Your task to perform on an android device: change timer sound Image 0: 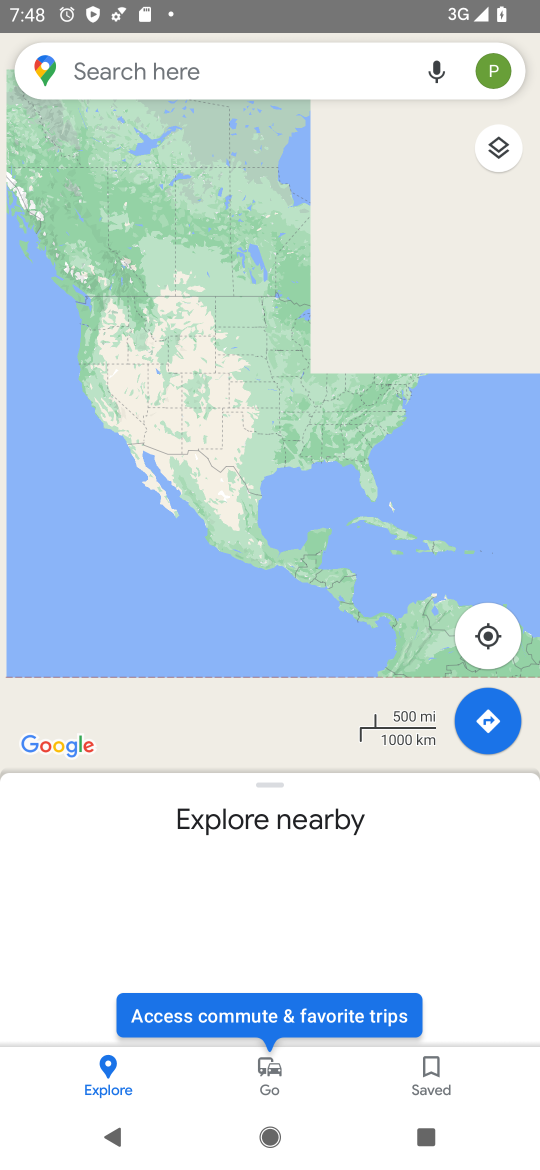
Step 0: press back button
Your task to perform on an android device: change timer sound Image 1: 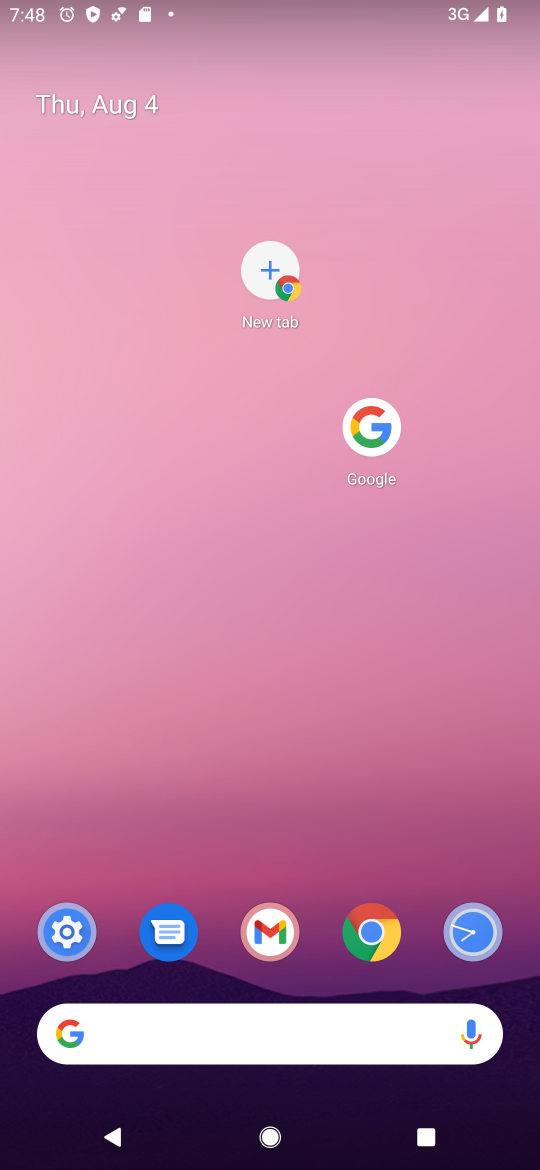
Step 1: drag from (251, 959) to (348, 515)
Your task to perform on an android device: change timer sound Image 2: 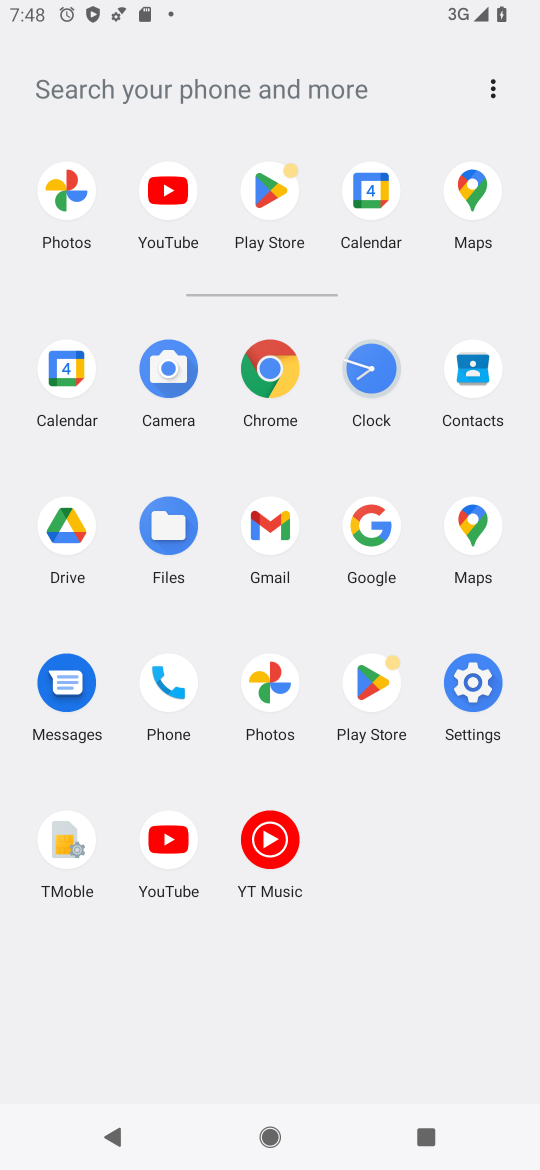
Step 2: click (387, 367)
Your task to perform on an android device: change timer sound Image 3: 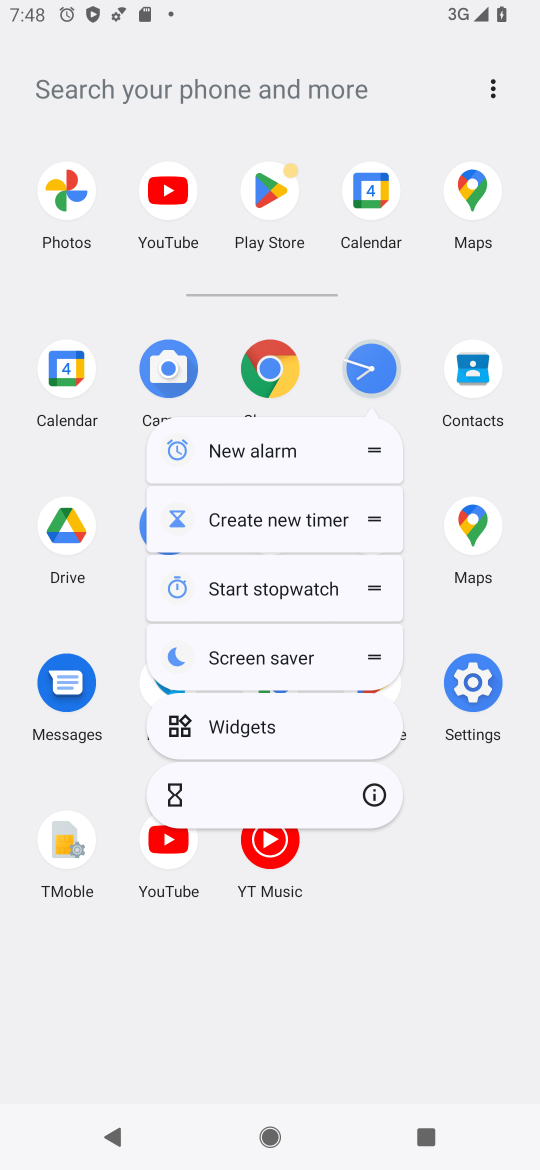
Step 3: click (379, 364)
Your task to perform on an android device: change timer sound Image 4: 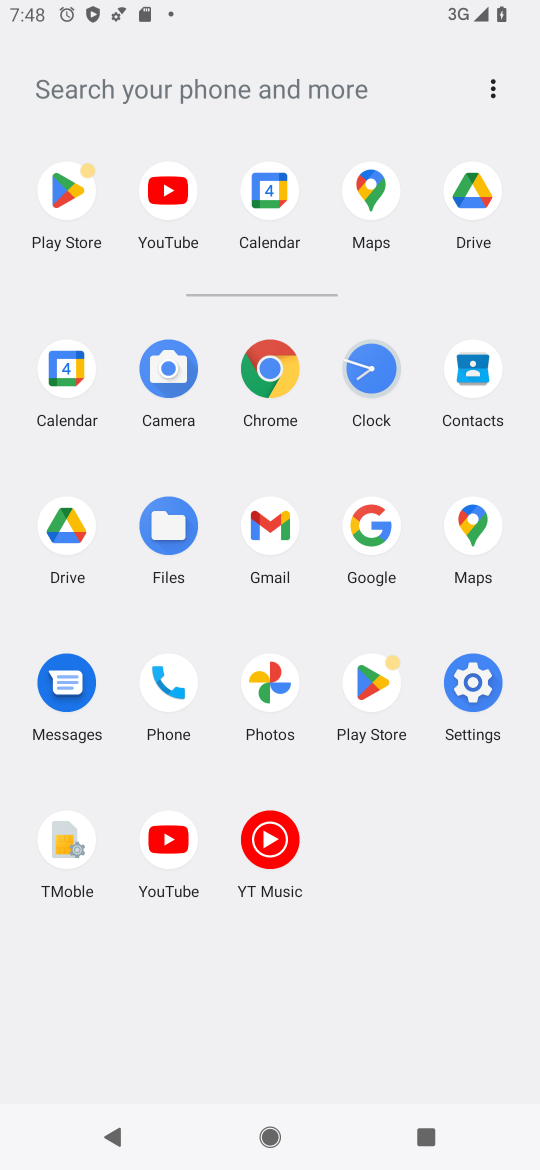
Step 4: click (363, 358)
Your task to perform on an android device: change timer sound Image 5: 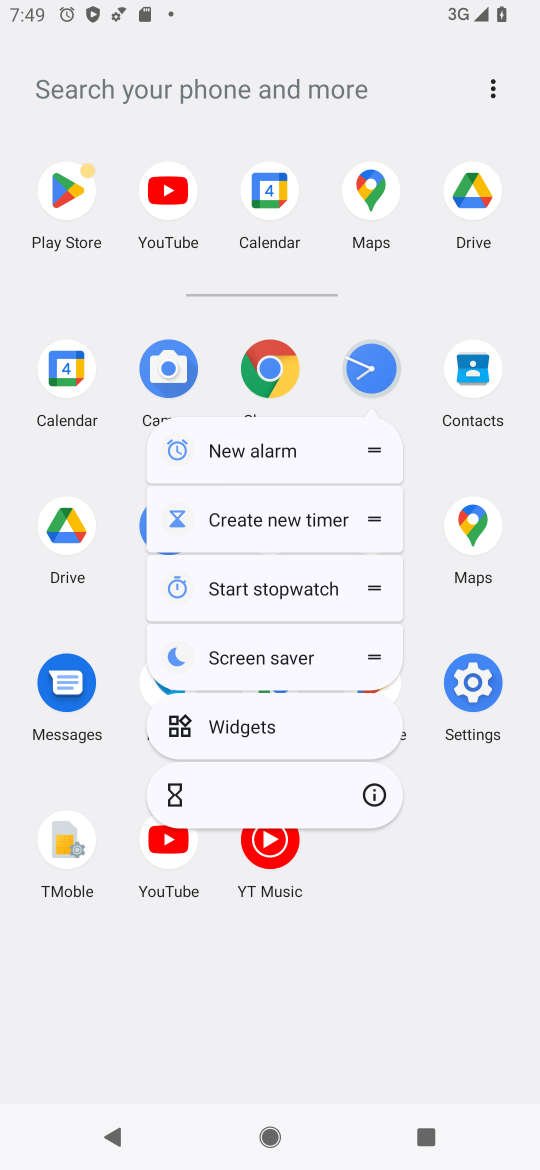
Step 5: click (372, 369)
Your task to perform on an android device: change timer sound Image 6: 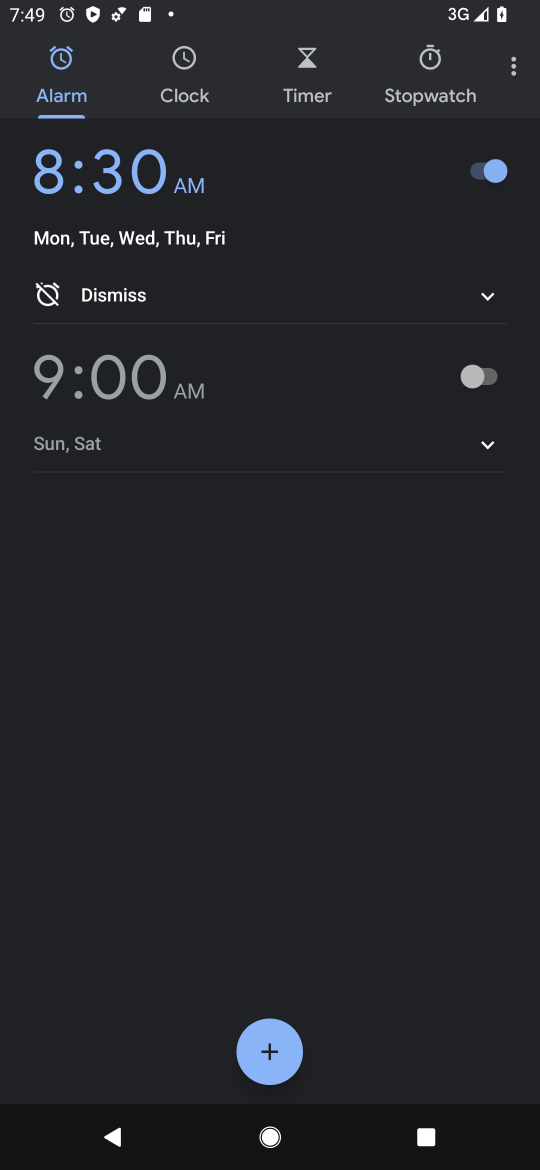
Step 6: click (517, 68)
Your task to perform on an android device: change timer sound Image 7: 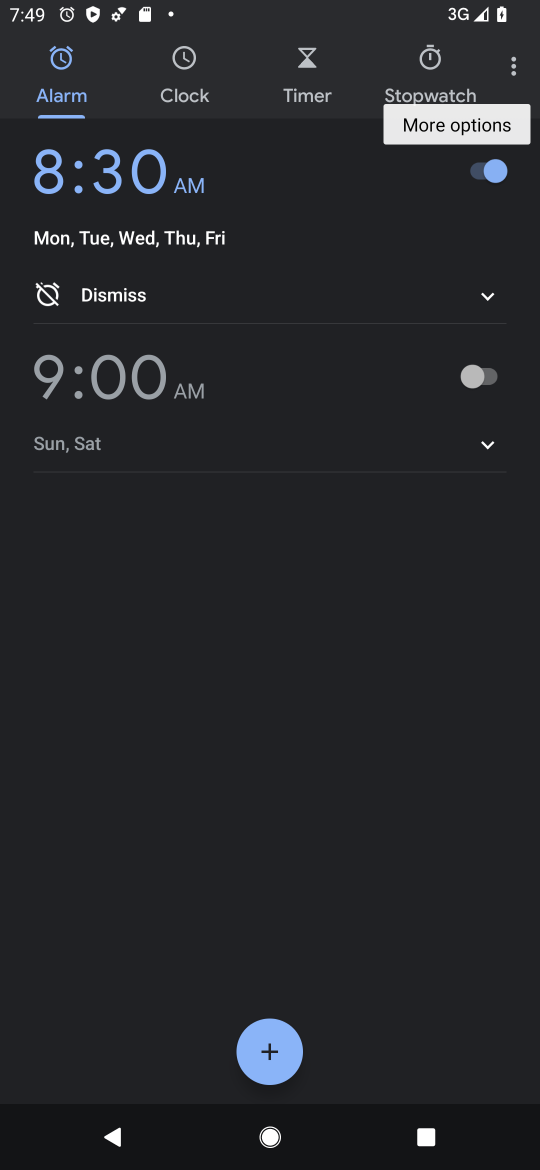
Step 7: click (517, 68)
Your task to perform on an android device: change timer sound Image 8: 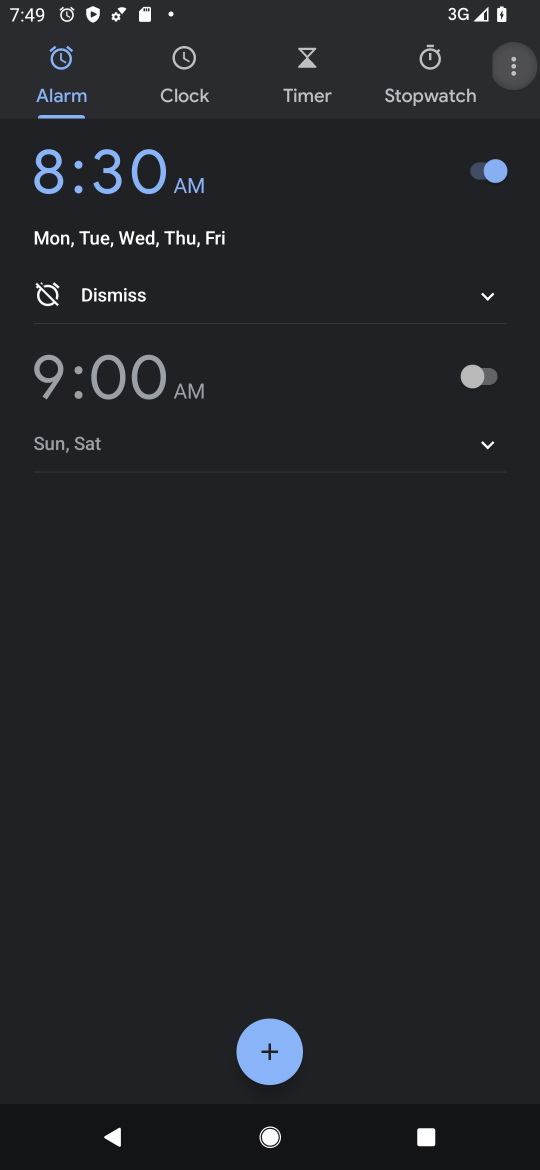
Step 8: click (518, 65)
Your task to perform on an android device: change timer sound Image 9: 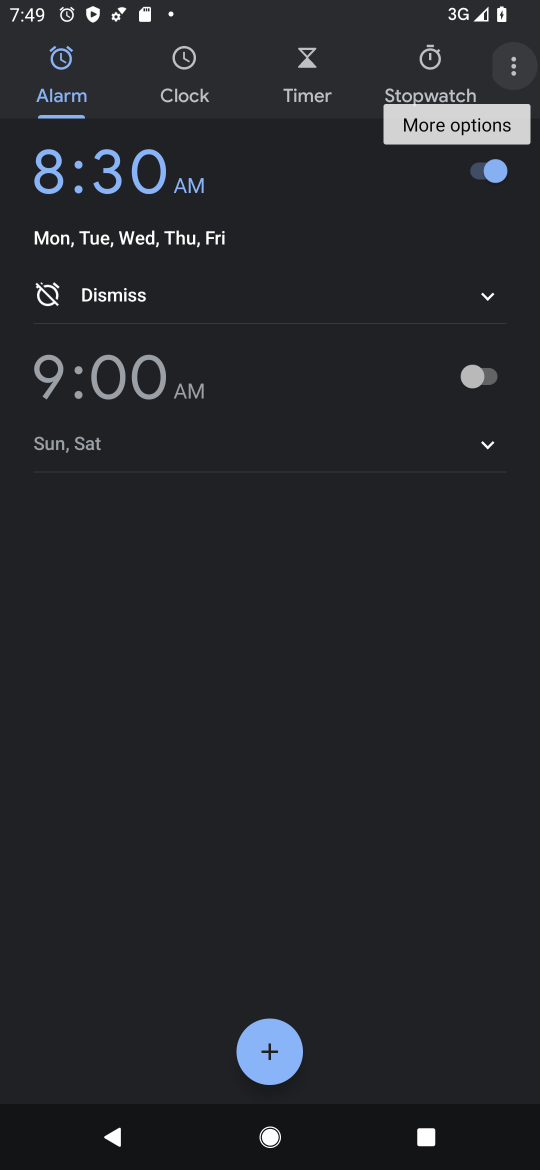
Step 9: click (518, 65)
Your task to perform on an android device: change timer sound Image 10: 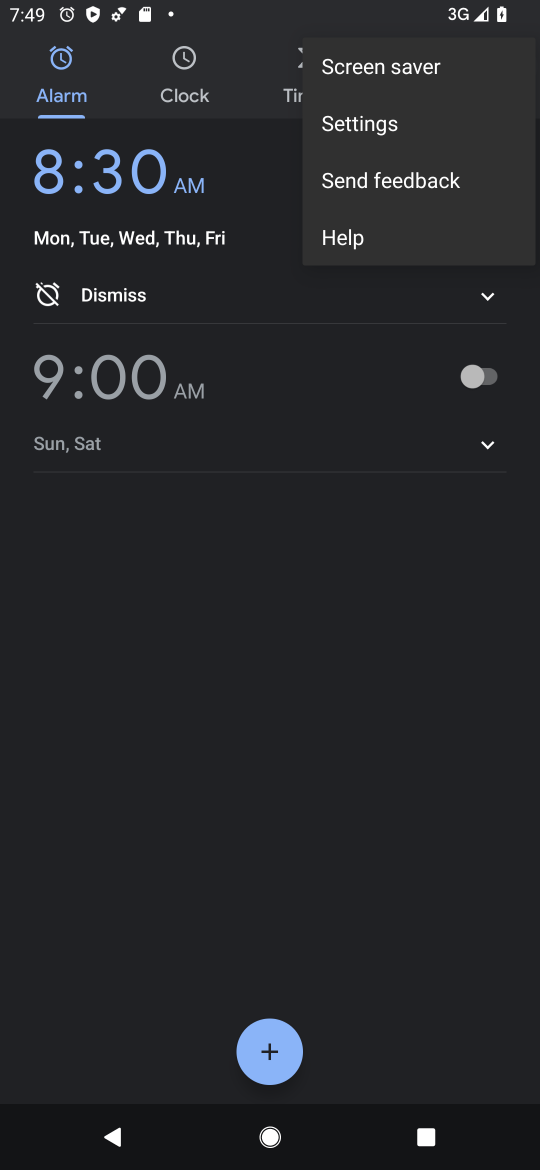
Step 10: click (520, 78)
Your task to perform on an android device: change timer sound Image 11: 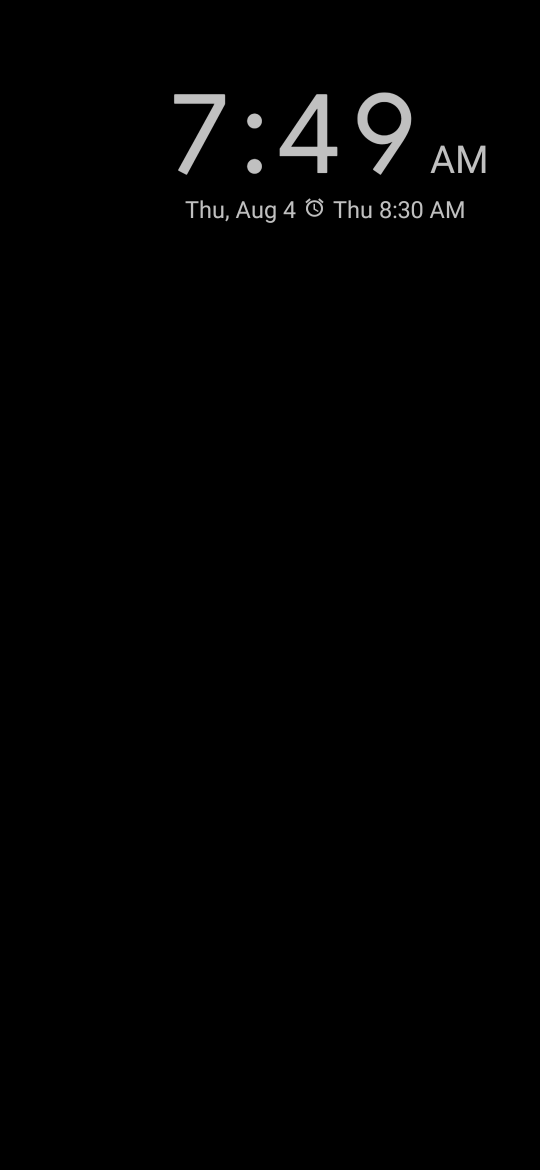
Step 11: press back button
Your task to perform on an android device: change timer sound Image 12: 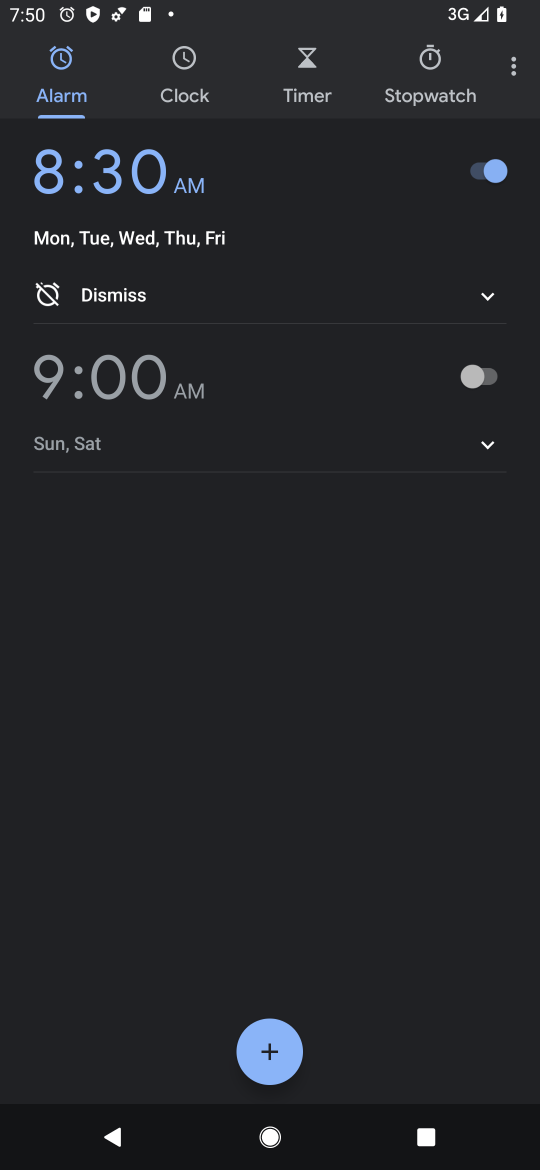
Step 12: click (507, 72)
Your task to perform on an android device: change timer sound Image 13: 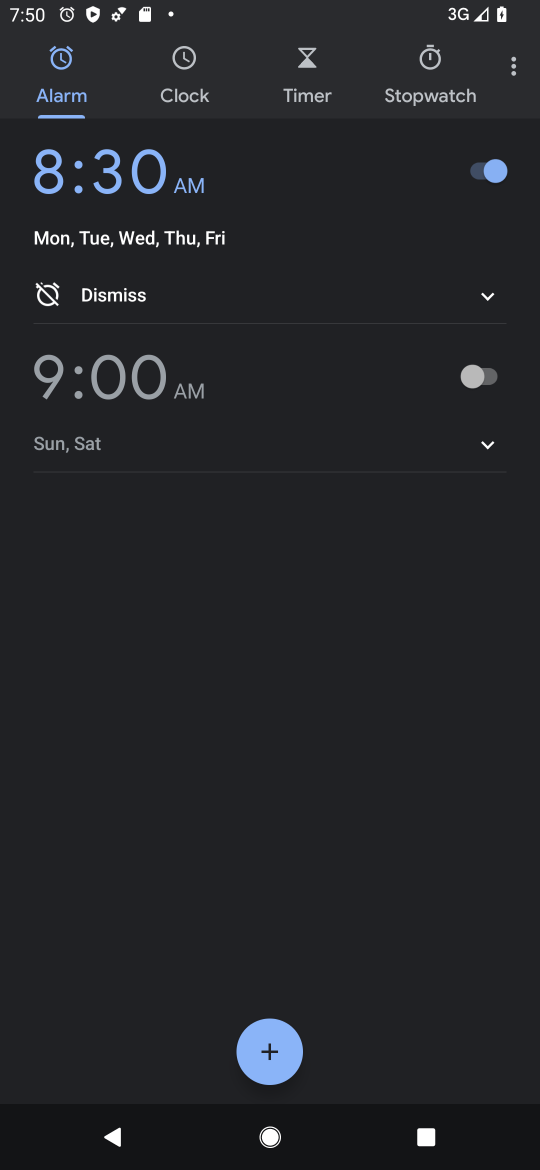
Step 13: click (513, 69)
Your task to perform on an android device: change timer sound Image 14: 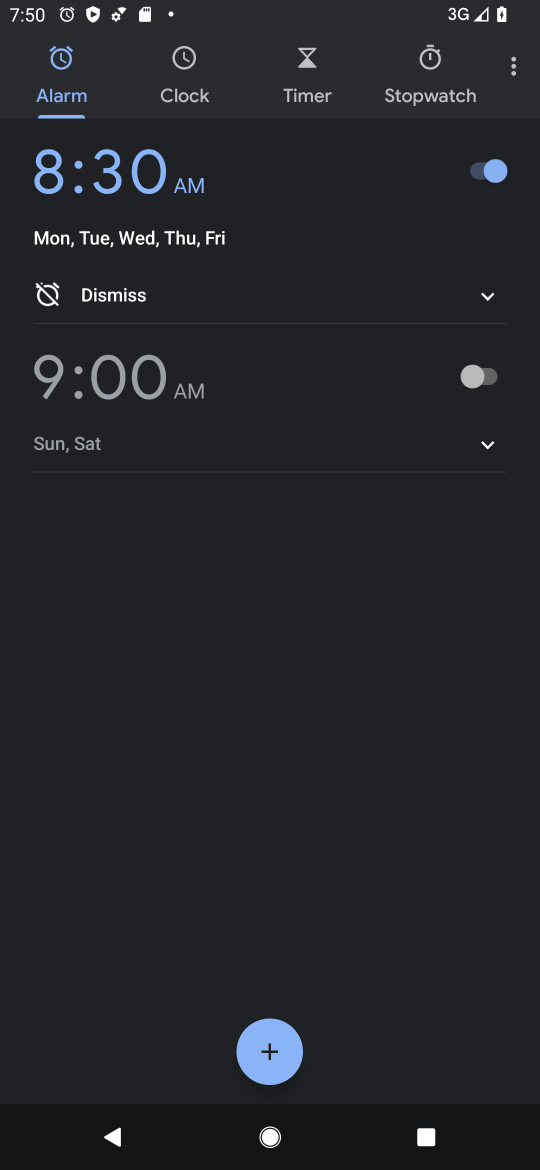
Step 14: click (508, 69)
Your task to perform on an android device: change timer sound Image 15: 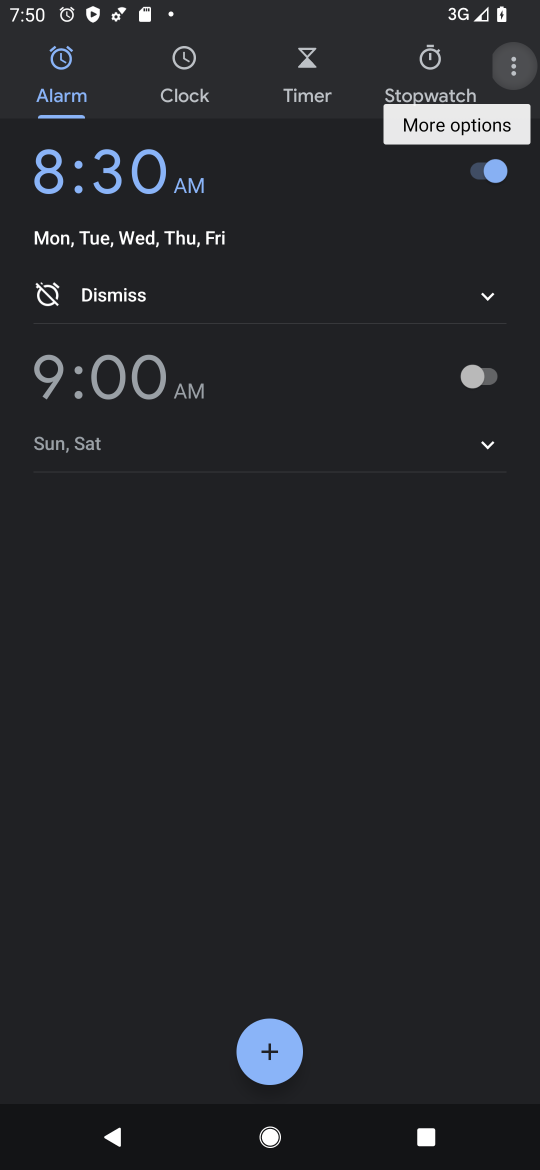
Step 15: click (508, 69)
Your task to perform on an android device: change timer sound Image 16: 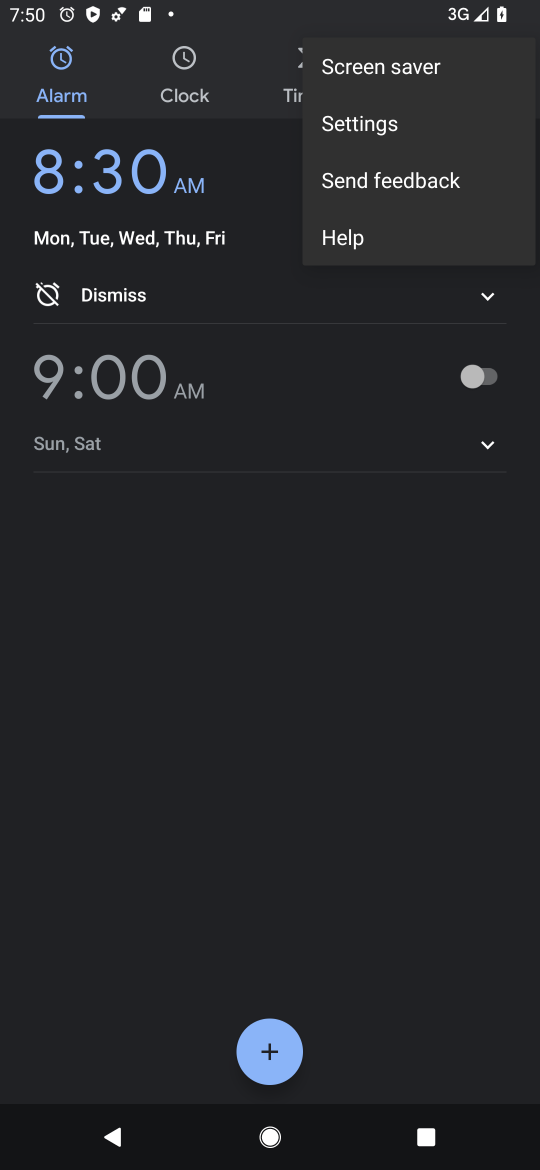
Step 16: click (350, 120)
Your task to perform on an android device: change timer sound Image 17: 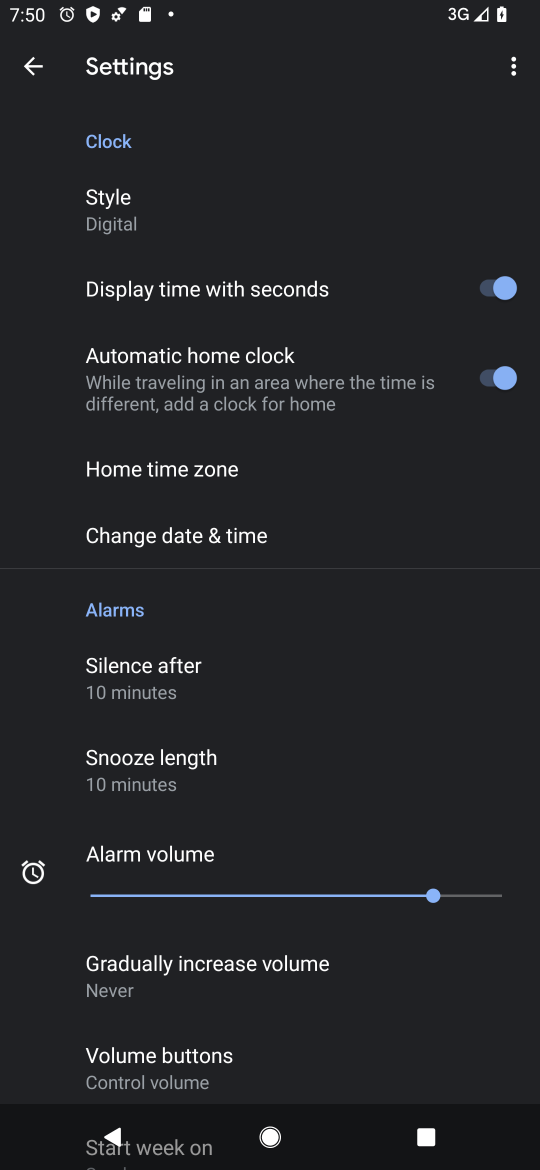
Step 17: drag from (163, 833) to (153, 271)
Your task to perform on an android device: change timer sound Image 18: 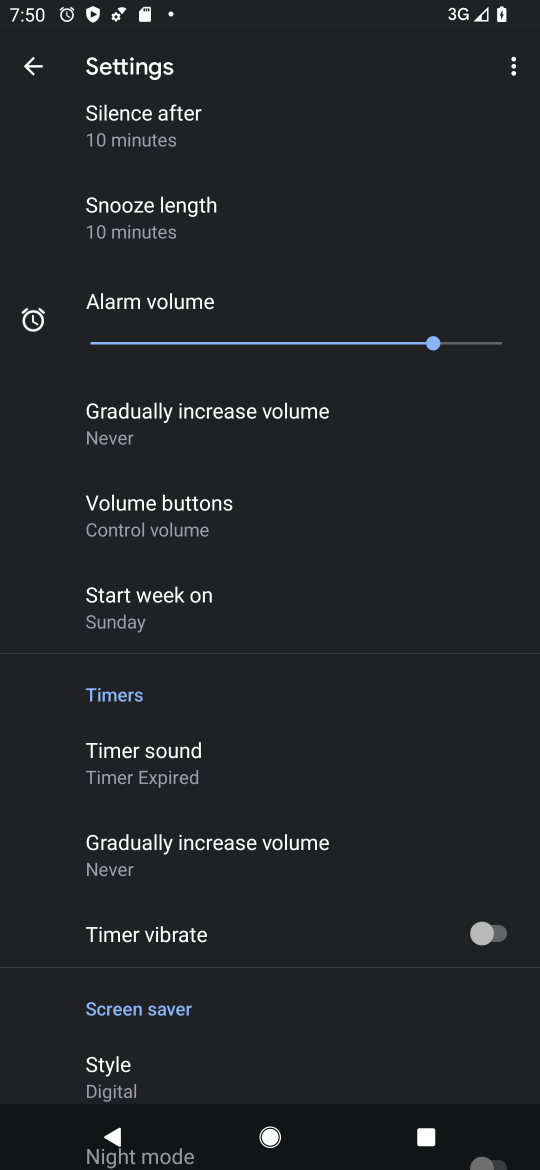
Step 18: click (157, 768)
Your task to perform on an android device: change timer sound Image 19: 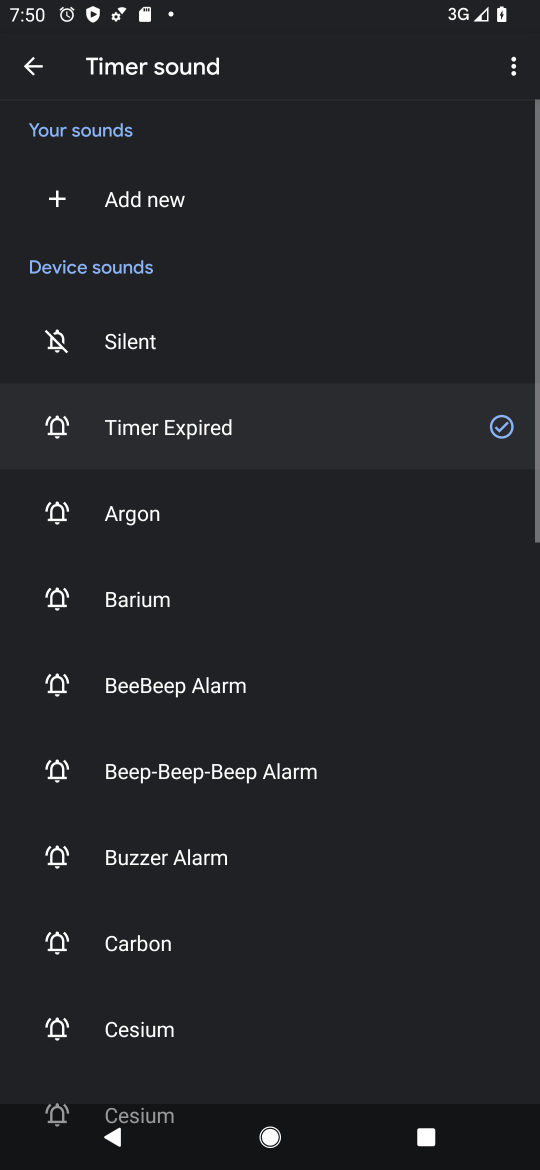
Step 19: click (122, 602)
Your task to perform on an android device: change timer sound Image 20: 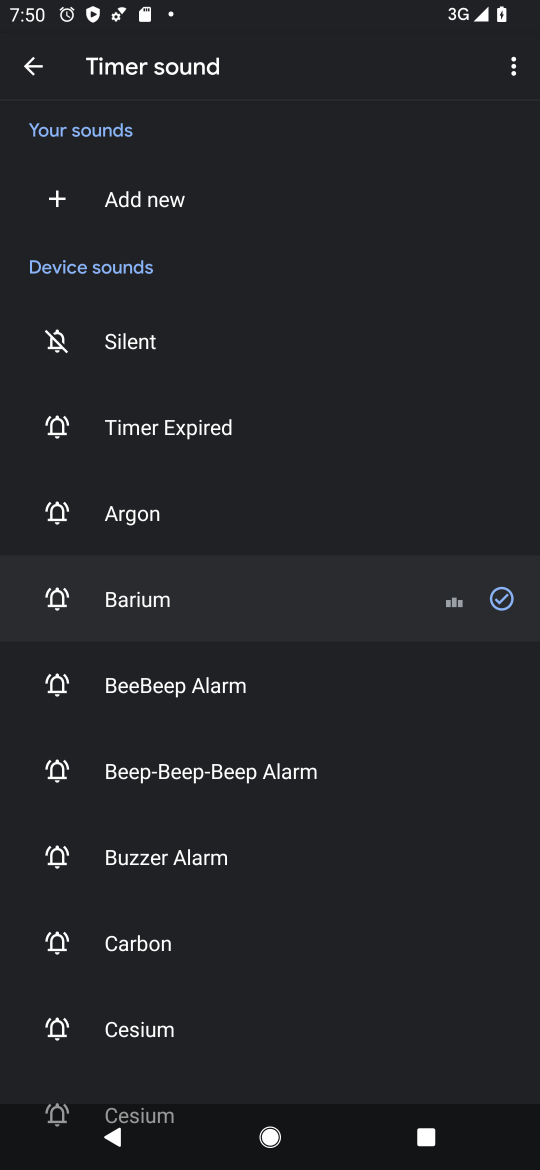
Step 20: task complete